Your task to perform on an android device: turn on sleep mode Image 0: 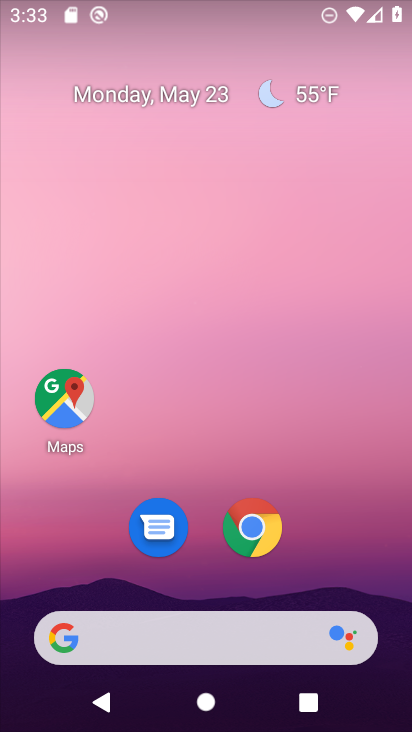
Step 0: drag from (209, 583) to (244, 105)
Your task to perform on an android device: turn on sleep mode Image 1: 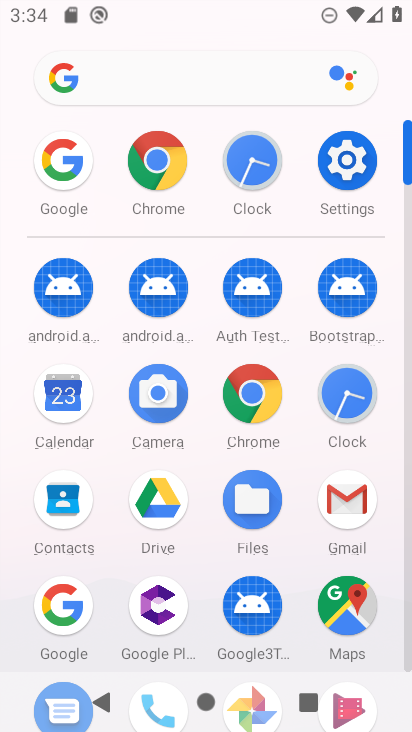
Step 1: click (341, 151)
Your task to perform on an android device: turn on sleep mode Image 2: 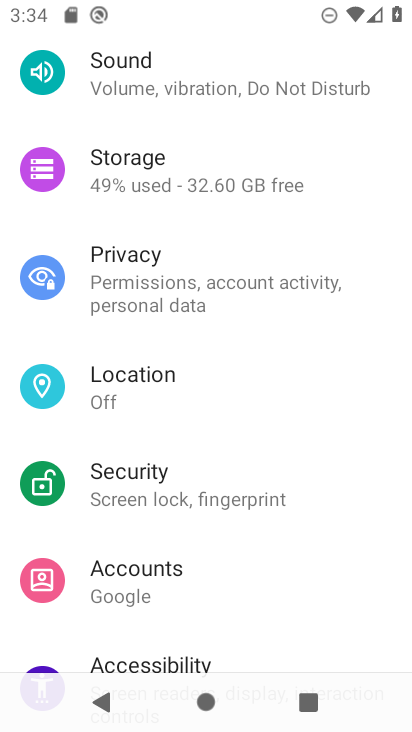
Step 2: drag from (177, 146) to (280, 637)
Your task to perform on an android device: turn on sleep mode Image 3: 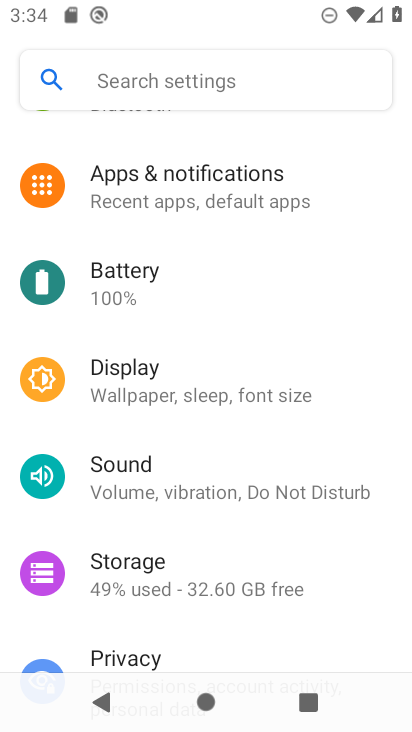
Step 3: click (160, 374)
Your task to perform on an android device: turn on sleep mode Image 4: 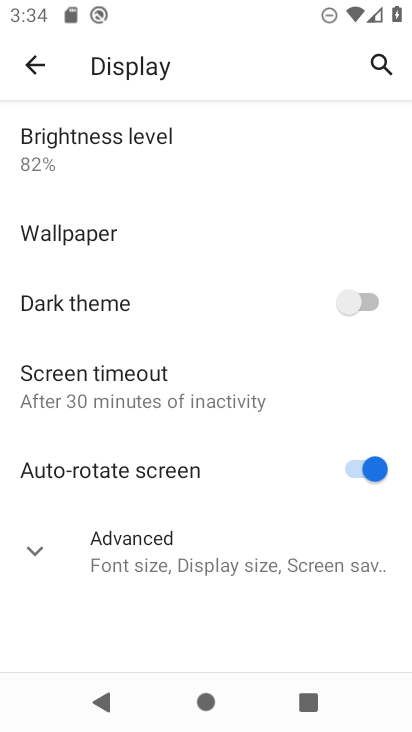
Step 4: click (35, 544)
Your task to perform on an android device: turn on sleep mode Image 5: 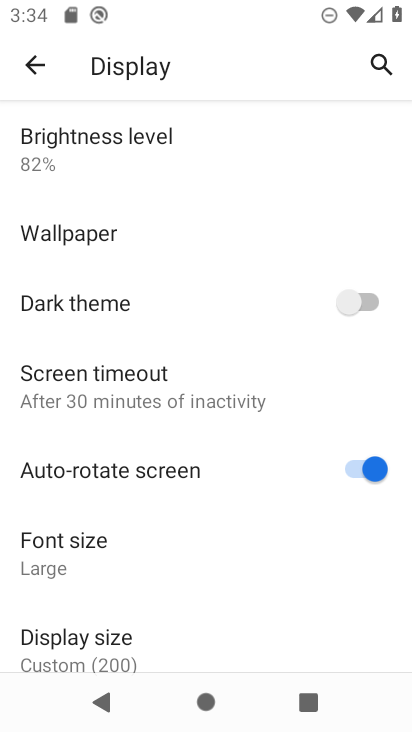
Step 5: task complete